Your task to perform on an android device: delete a single message in the gmail app Image 0: 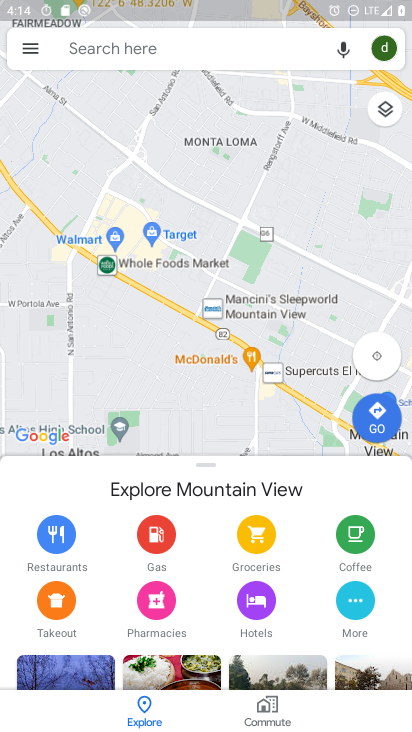
Step 0: press home button
Your task to perform on an android device: delete a single message in the gmail app Image 1: 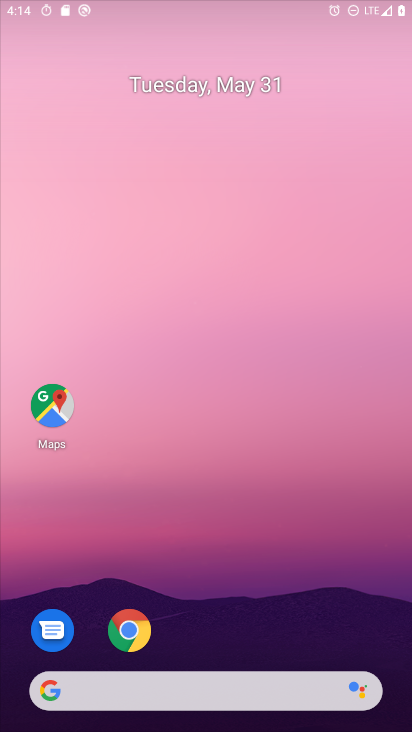
Step 1: drag from (318, 689) to (388, 56)
Your task to perform on an android device: delete a single message in the gmail app Image 2: 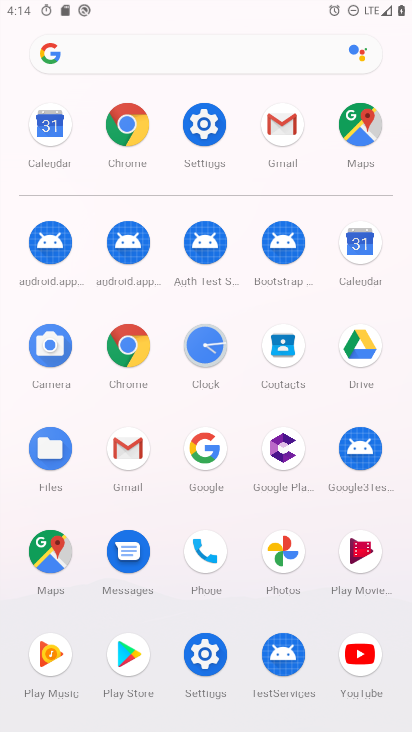
Step 2: click (119, 466)
Your task to perform on an android device: delete a single message in the gmail app Image 3: 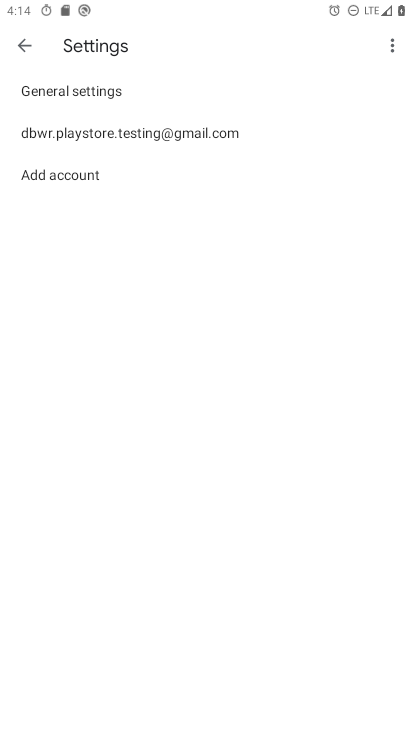
Step 3: press back button
Your task to perform on an android device: delete a single message in the gmail app Image 4: 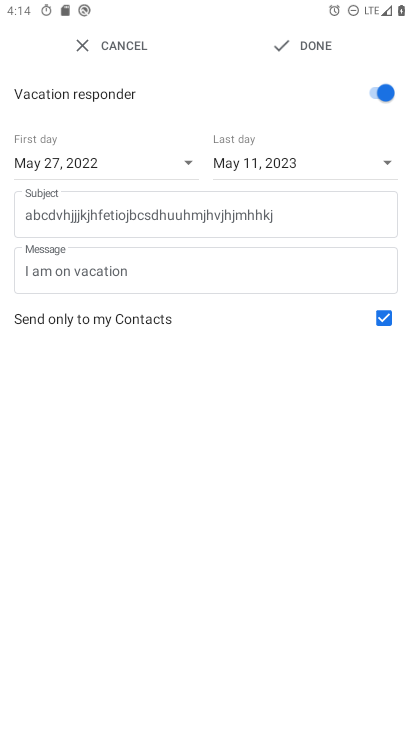
Step 4: press back button
Your task to perform on an android device: delete a single message in the gmail app Image 5: 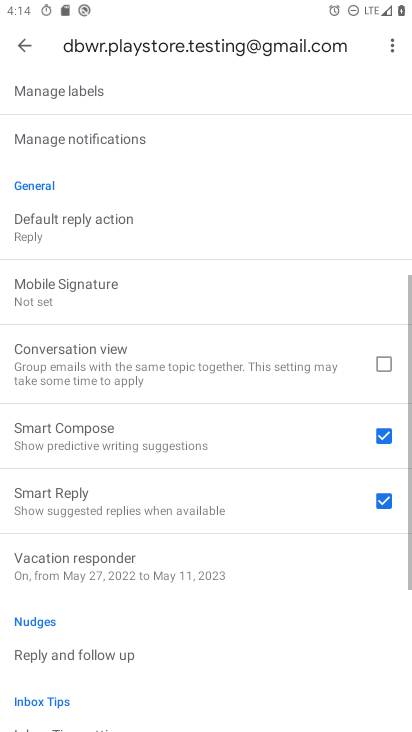
Step 5: press back button
Your task to perform on an android device: delete a single message in the gmail app Image 6: 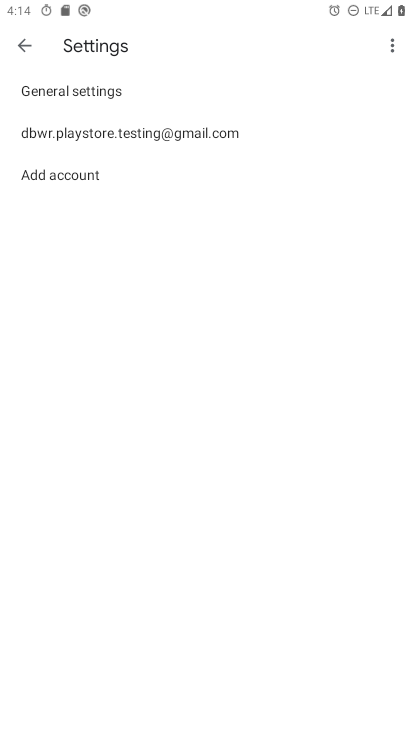
Step 6: press back button
Your task to perform on an android device: delete a single message in the gmail app Image 7: 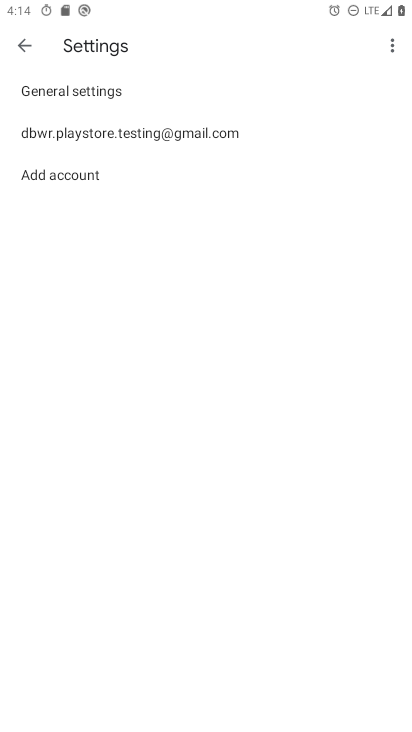
Step 7: press back button
Your task to perform on an android device: delete a single message in the gmail app Image 8: 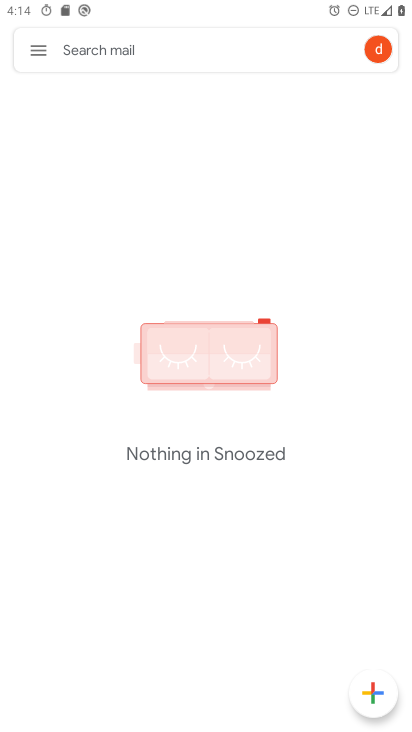
Step 8: click (35, 49)
Your task to perform on an android device: delete a single message in the gmail app Image 9: 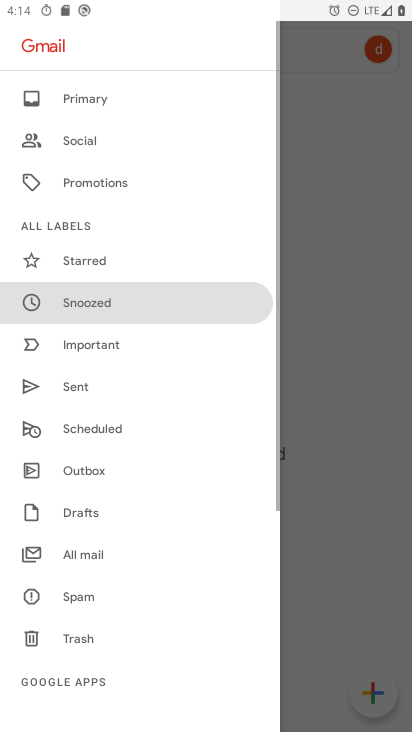
Step 9: drag from (116, 136) to (182, 406)
Your task to perform on an android device: delete a single message in the gmail app Image 10: 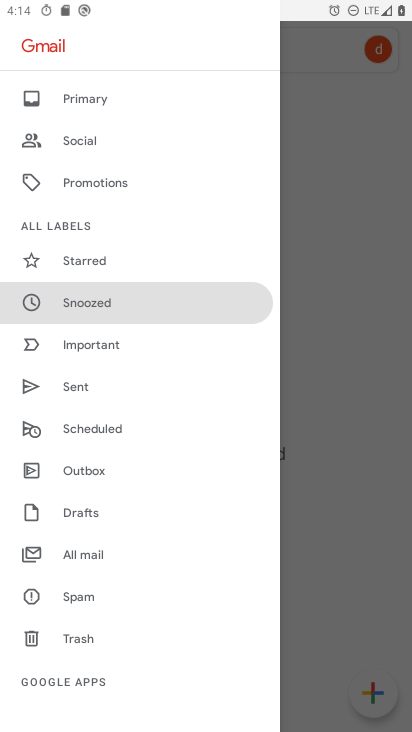
Step 10: click (105, 100)
Your task to perform on an android device: delete a single message in the gmail app Image 11: 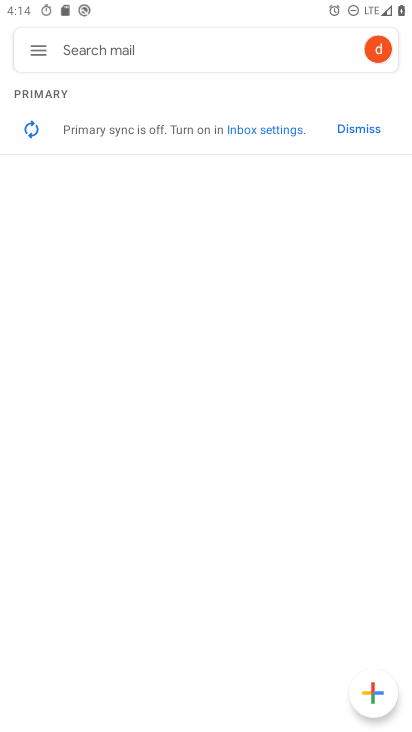
Step 11: task complete